Your task to perform on an android device: When is my next appointment? Image 0: 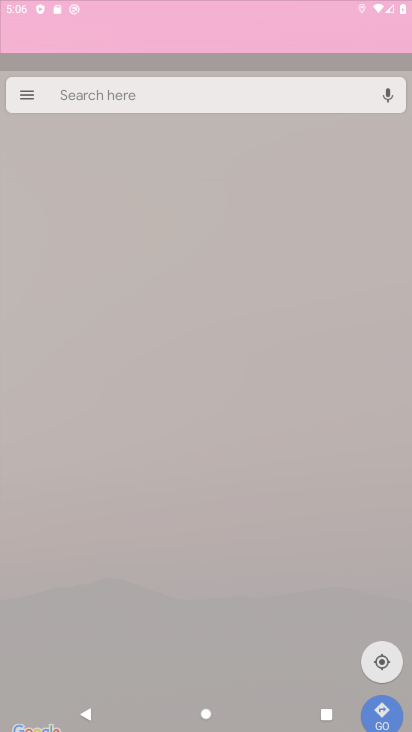
Step 0: click (137, 610)
Your task to perform on an android device: When is my next appointment? Image 1: 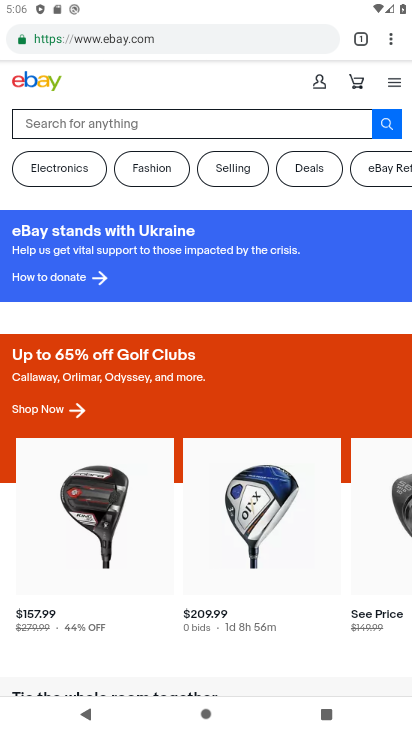
Step 1: click (228, 44)
Your task to perform on an android device: When is my next appointment? Image 2: 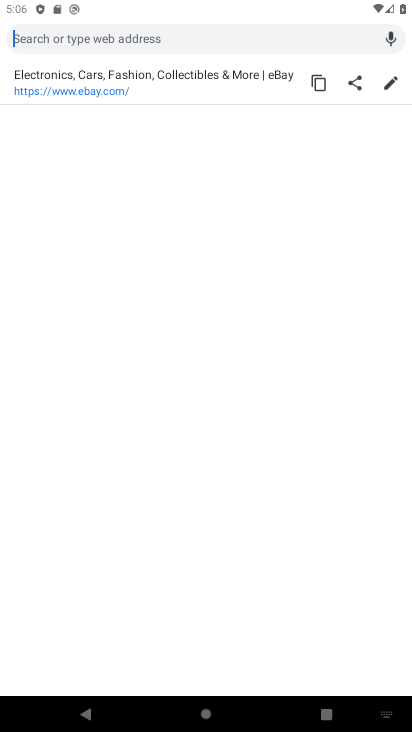
Step 2: type "amazon"
Your task to perform on an android device: When is my next appointment? Image 3: 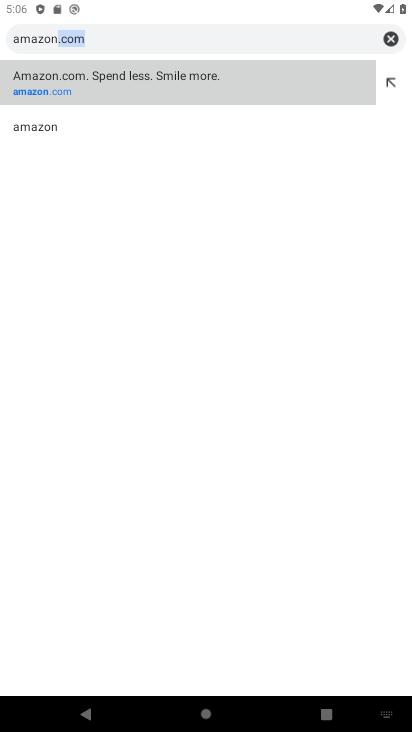
Step 3: click (103, 70)
Your task to perform on an android device: When is my next appointment? Image 4: 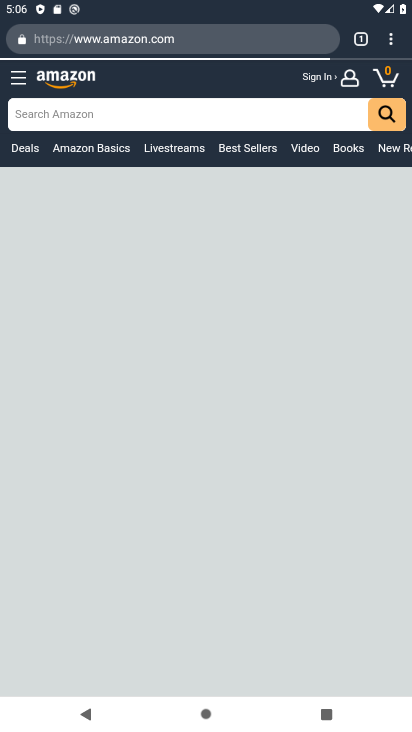
Step 4: task complete